Your task to perform on an android device: turn on bluetooth scan Image 0: 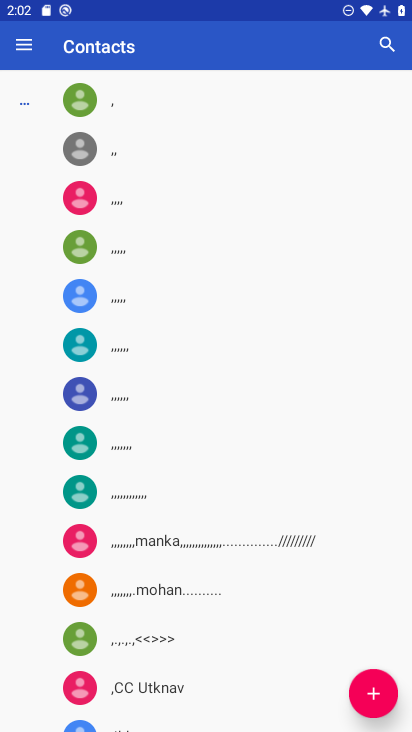
Step 0: press home button
Your task to perform on an android device: turn on bluetooth scan Image 1: 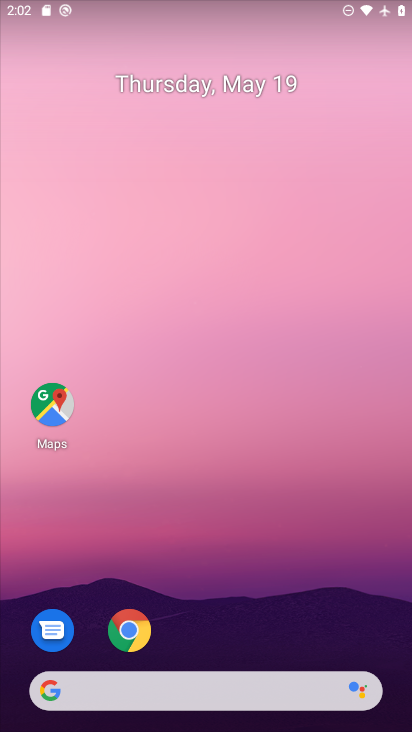
Step 1: drag from (210, 659) to (150, 14)
Your task to perform on an android device: turn on bluetooth scan Image 2: 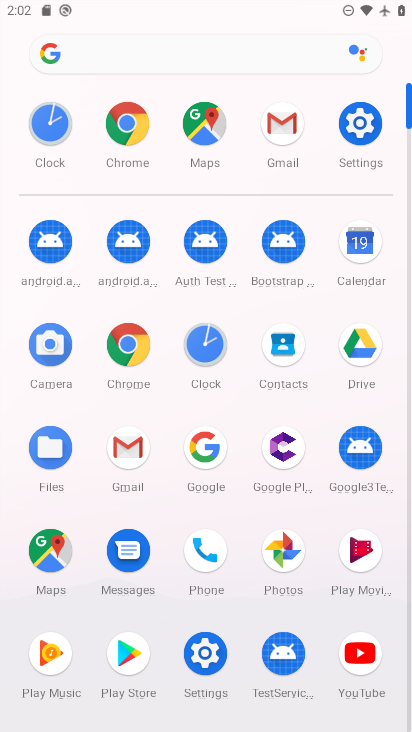
Step 2: click (356, 127)
Your task to perform on an android device: turn on bluetooth scan Image 3: 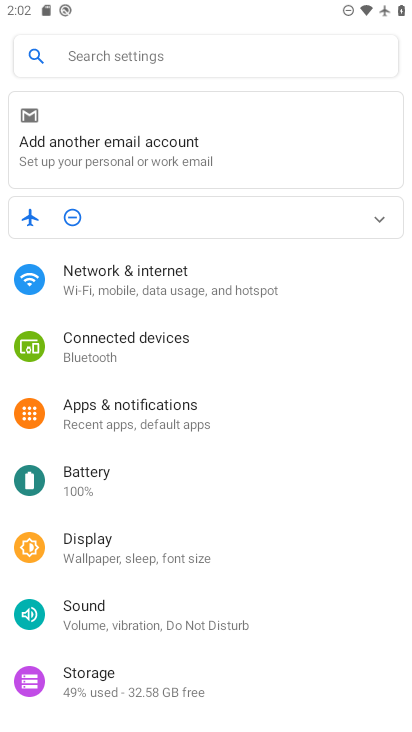
Step 3: drag from (158, 537) to (157, 247)
Your task to perform on an android device: turn on bluetooth scan Image 4: 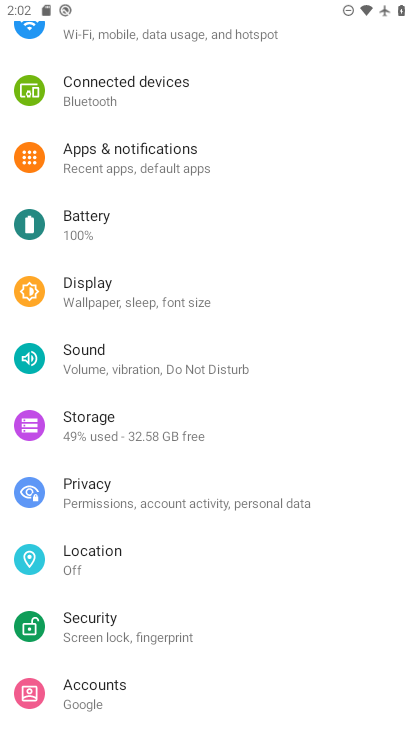
Step 4: click (119, 555)
Your task to perform on an android device: turn on bluetooth scan Image 5: 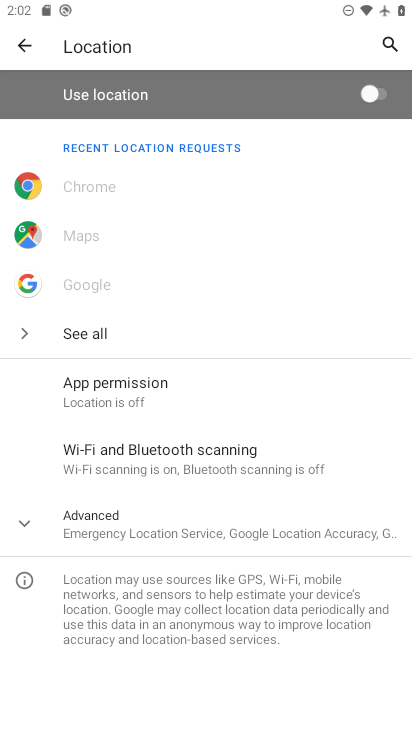
Step 5: click (125, 475)
Your task to perform on an android device: turn on bluetooth scan Image 6: 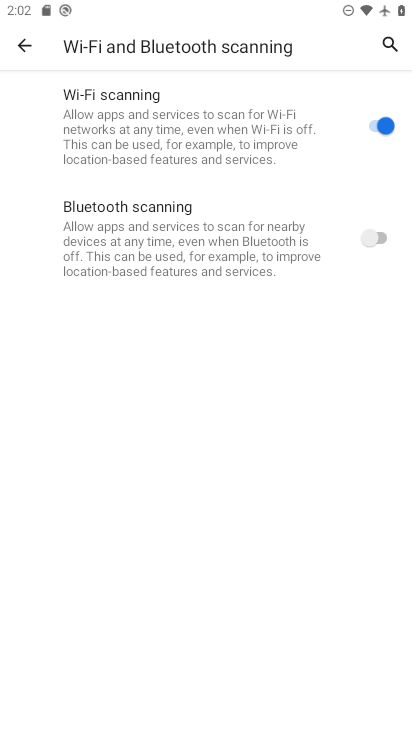
Step 6: click (342, 250)
Your task to perform on an android device: turn on bluetooth scan Image 7: 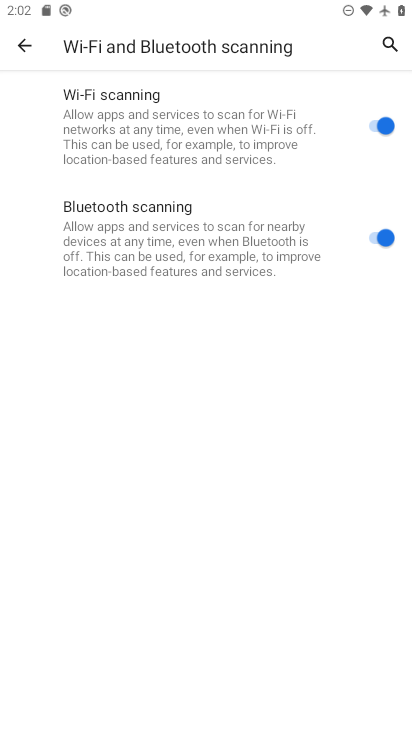
Step 7: task complete